Your task to perform on an android device: refresh tabs in the chrome app Image 0: 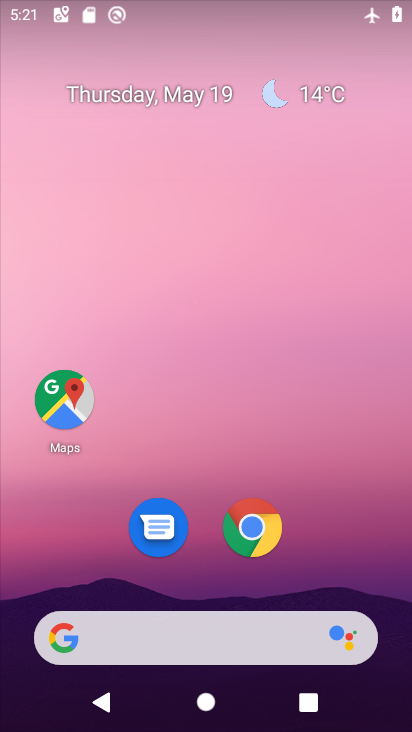
Step 0: click (248, 526)
Your task to perform on an android device: refresh tabs in the chrome app Image 1: 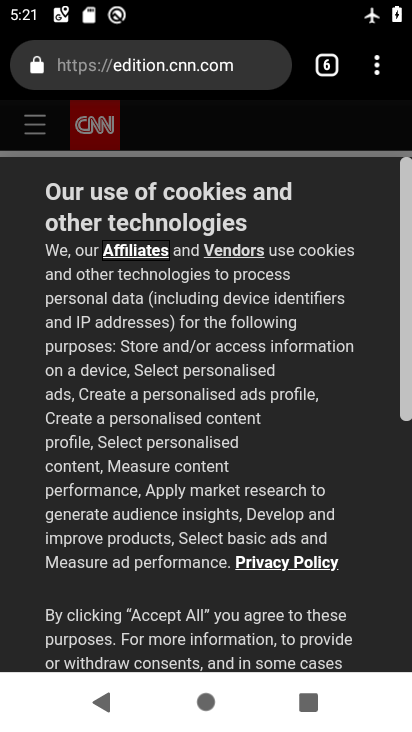
Step 1: click (379, 70)
Your task to perform on an android device: refresh tabs in the chrome app Image 2: 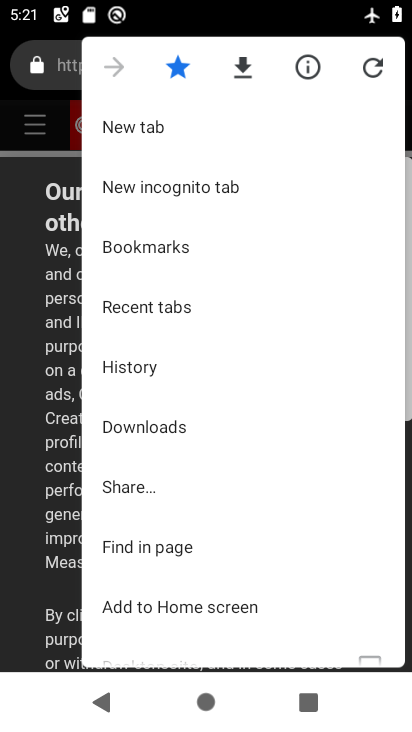
Step 2: click (367, 69)
Your task to perform on an android device: refresh tabs in the chrome app Image 3: 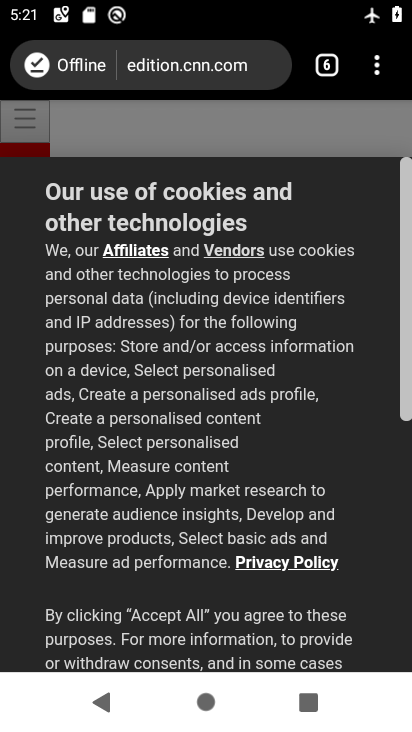
Step 3: task complete